Your task to perform on an android device: open device folders in google photos Image 0: 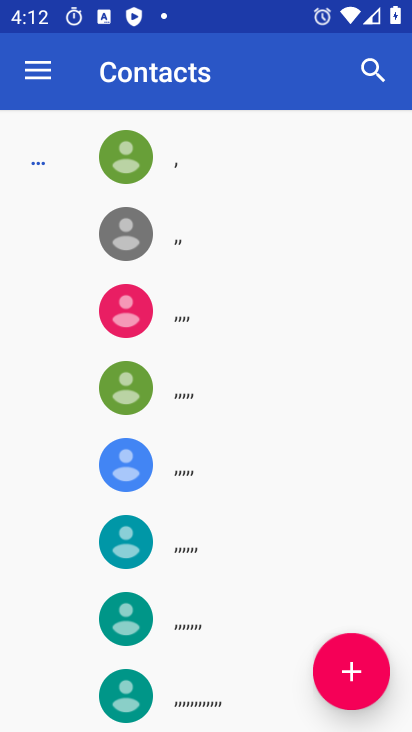
Step 0: press home button
Your task to perform on an android device: open device folders in google photos Image 1: 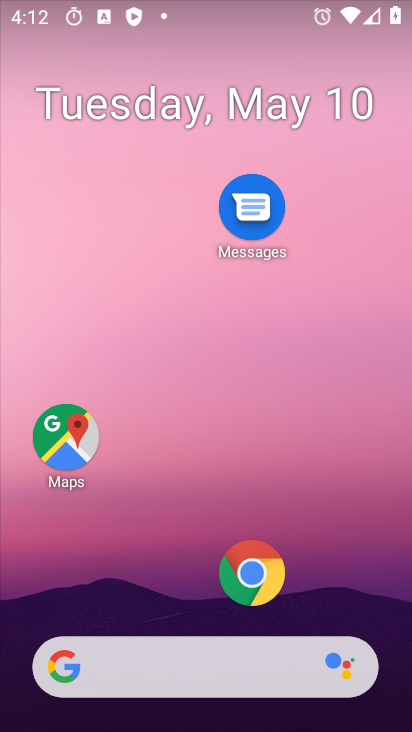
Step 1: drag from (113, 595) to (139, 163)
Your task to perform on an android device: open device folders in google photos Image 2: 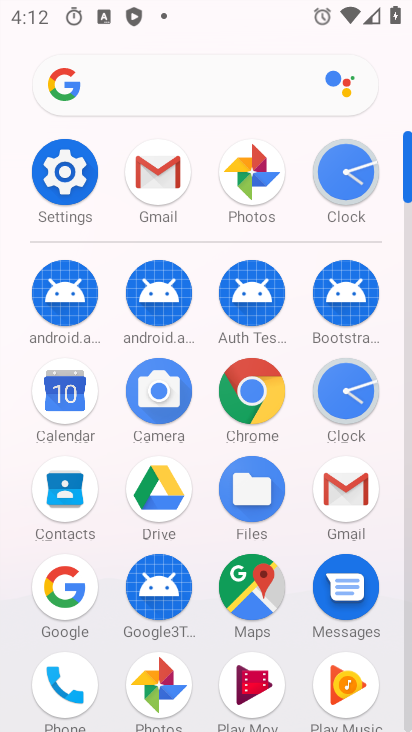
Step 2: click (230, 172)
Your task to perform on an android device: open device folders in google photos Image 3: 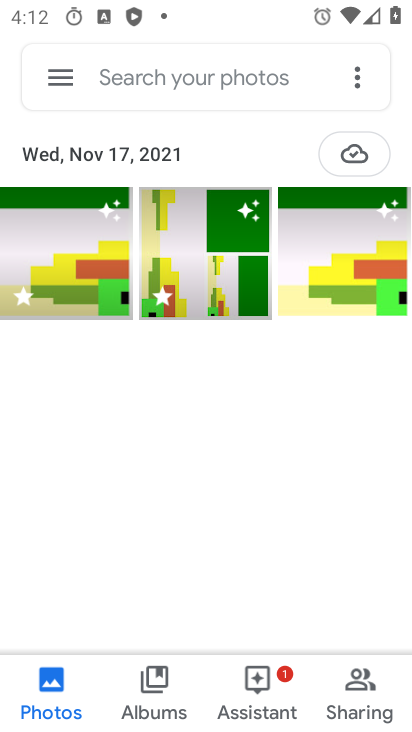
Step 3: click (66, 94)
Your task to perform on an android device: open device folders in google photos Image 4: 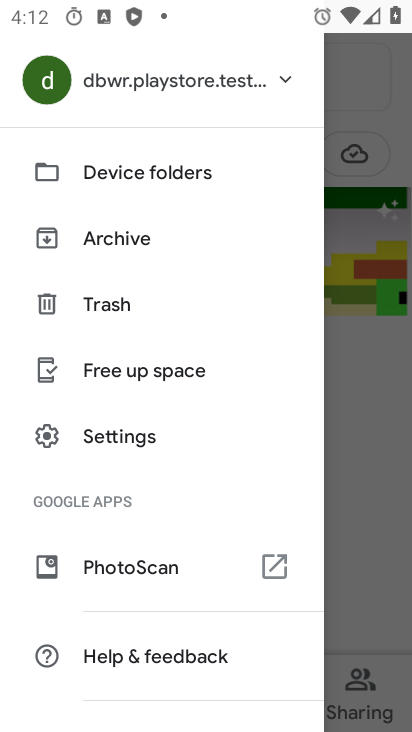
Step 4: click (137, 164)
Your task to perform on an android device: open device folders in google photos Image 5: 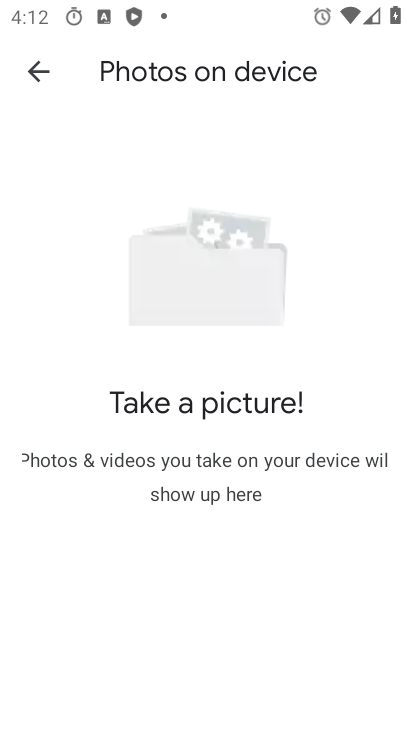
Step 5: task complete